Your task to perform on an android device: set an alarm Image 0: 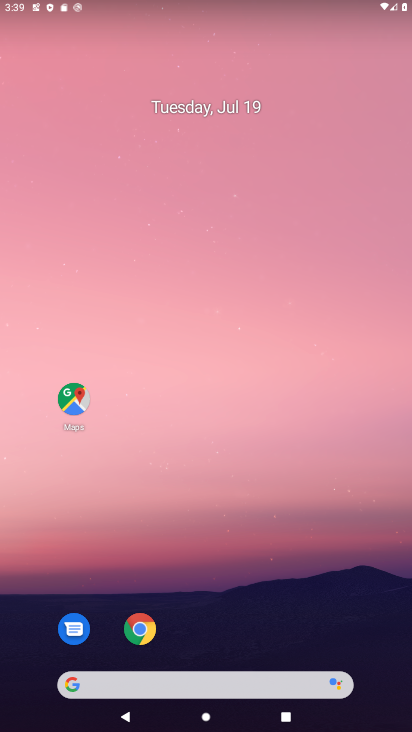
Step 0: drag from (194, 667) to (221, 72)
Your task to perform on an android device: set an alarm Image 1: 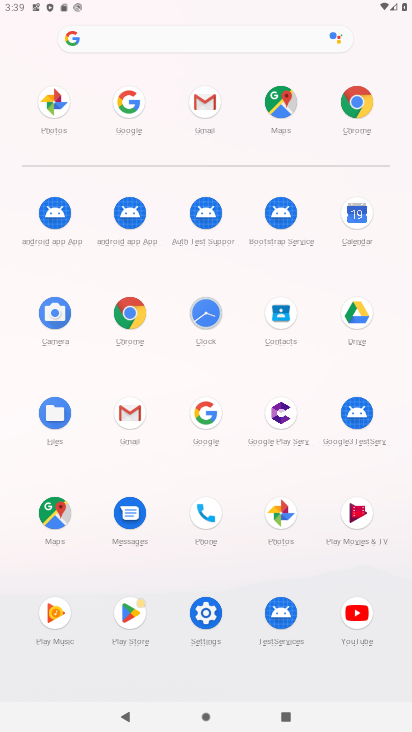
Step 1: click (200, 315)
Your task to perform on an android device: set an alarm Image 2: 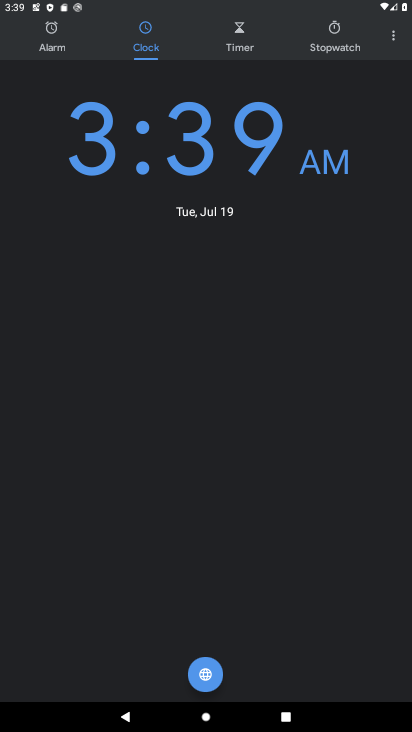
Step 2: click (43, 44)
Your task to perform on an android device: set an alarm Image 3: 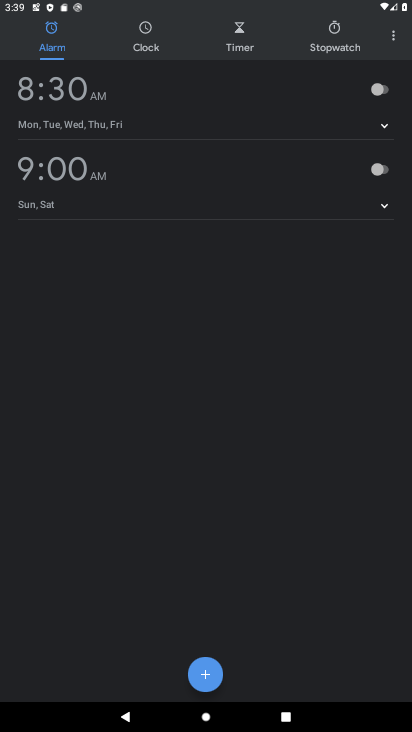
Step 3: click (225, 678)
Your task to perform on an android device: set an alarm Image 4: 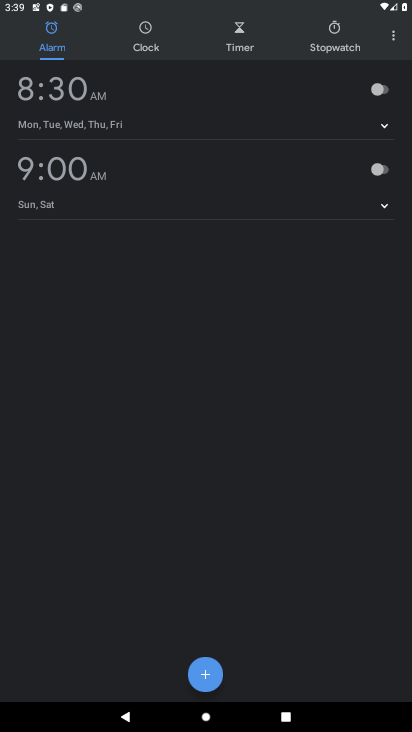
Step 4: click (218, 680)
Your task to perform on an android device: set an alarm Image 5: 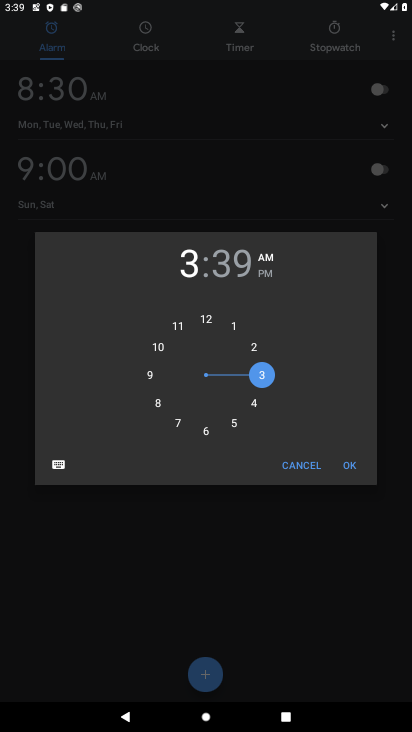
Step 5: click (206, 424)
Your task to perform on an android device: set an alarm Image 6: 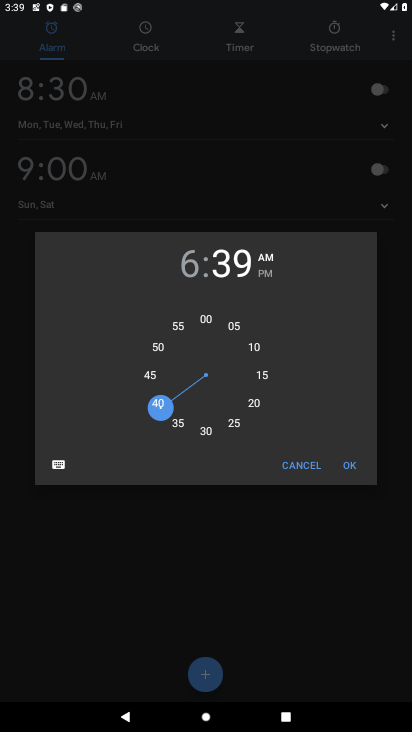
Step 6: click (205, 317)
Your task to perform on an android device: set an alarm Image 7: 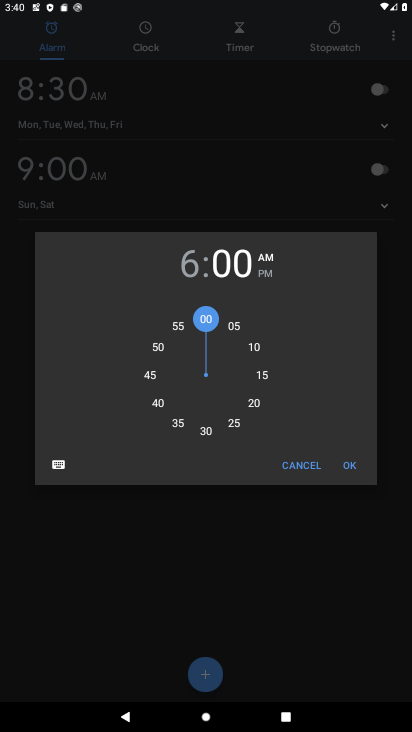
Step 7: click (347, 470)
Your task to perform on an android device: set an alarm Image 8: 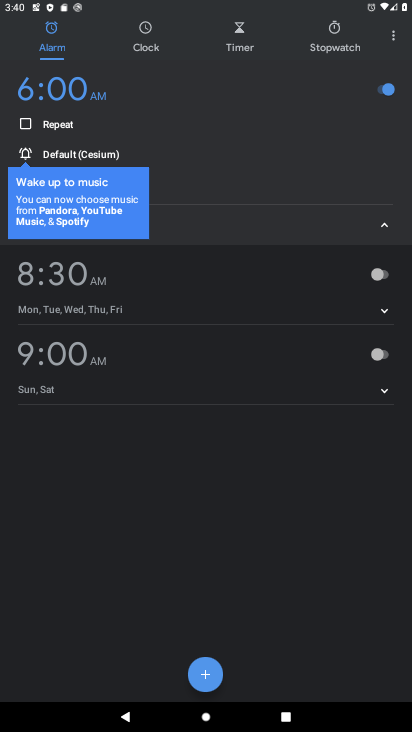
Step 8: task complete